Your task to perform on an android device: check the backup settings in the google photos Image 0: 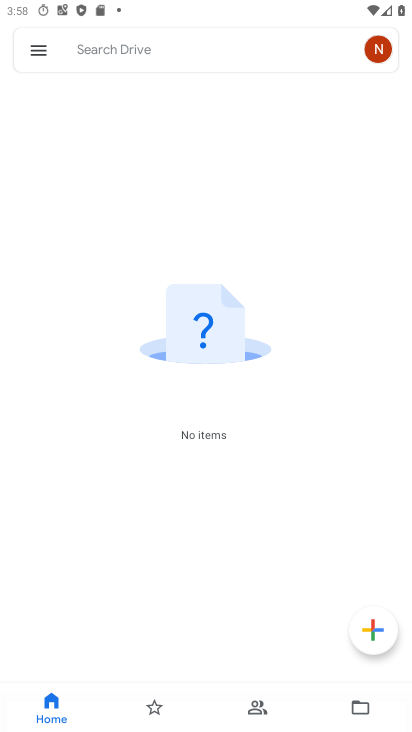
Step 0: press home button
Your task to perform on an android device: check the backup settings in the google photos Image 1: 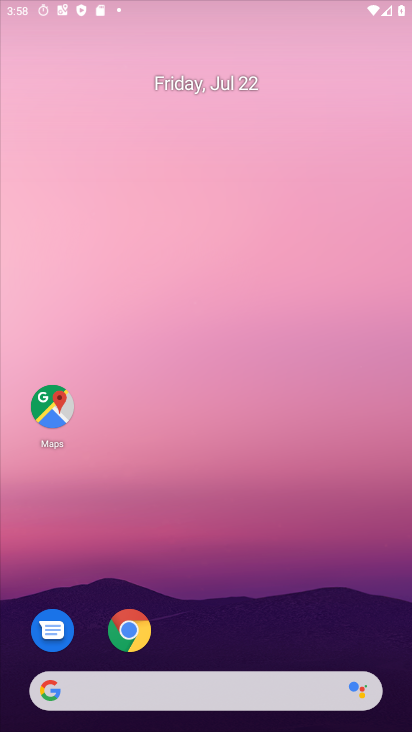
Step 1: drag from (247, 536) to (268, 30)
Your task to perform on an android device: check the backup settings in the google photos Image 2: 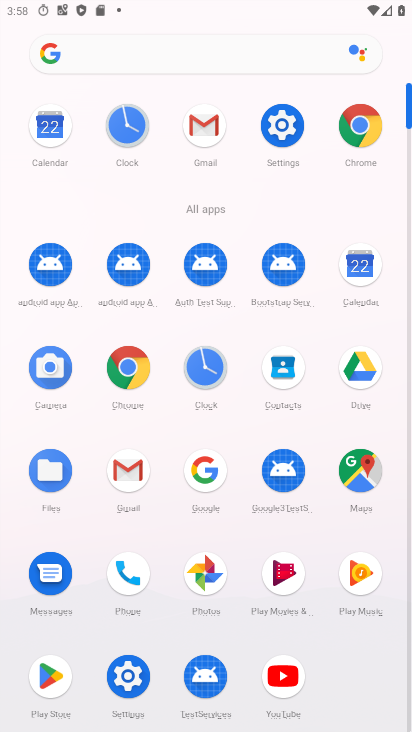
Step 2: click (214, 586)
Your task to perform on an android device: check the backup settings in the google photos Image 3: 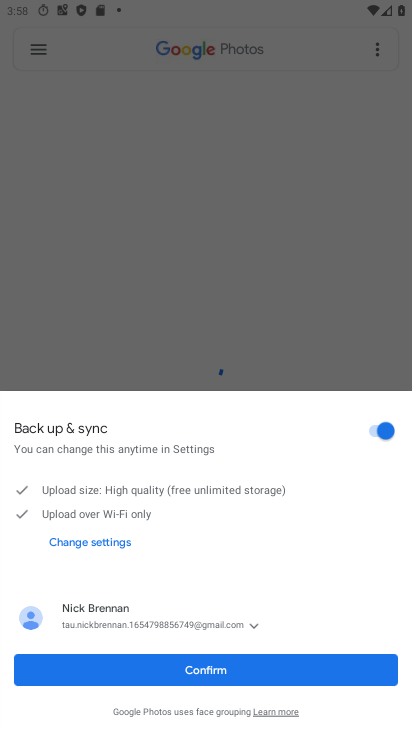
Step 3: click (206, 660)
Your task to perform on an android device: check the backup settings in the google photos Image 4: 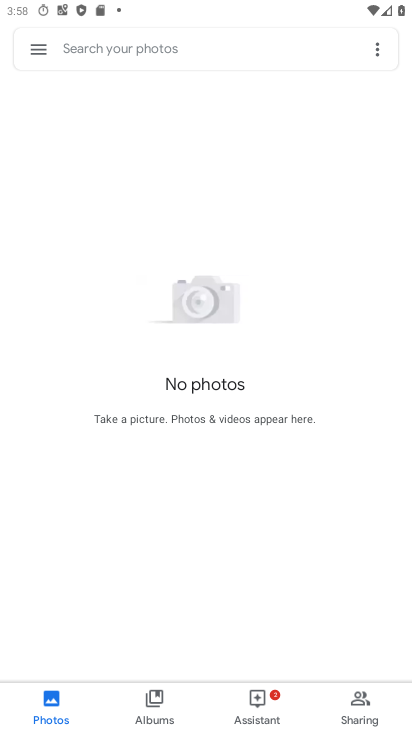
Step 4: click (42, 46)
Your task to perform on an android device: check the backup settings in the google photos Image 5: 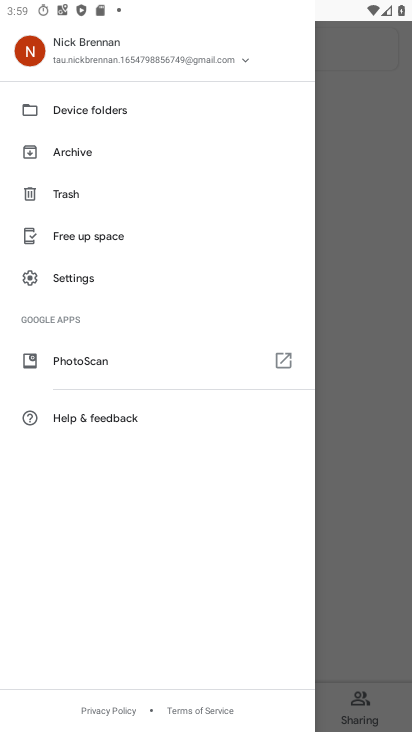
Step 5: click (86, 282)
Your task to perform on an android device: check the backup settings in the google photos Image 6: 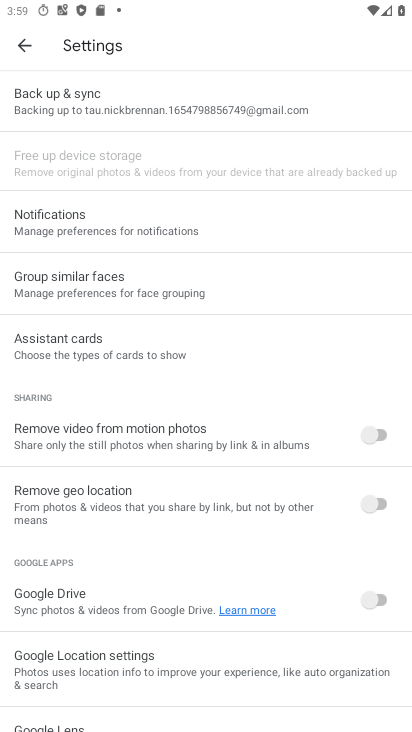
Step 6: click (106, 97)
Your task to perform on an android device: check the backup settings in the google photos Image 7: 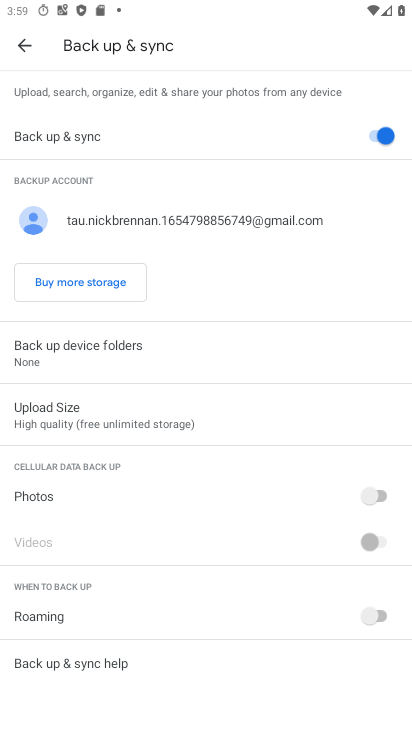
Step 7: task complete